Your task to perform on an android device: Do I have any events tomorrow? Image 0: 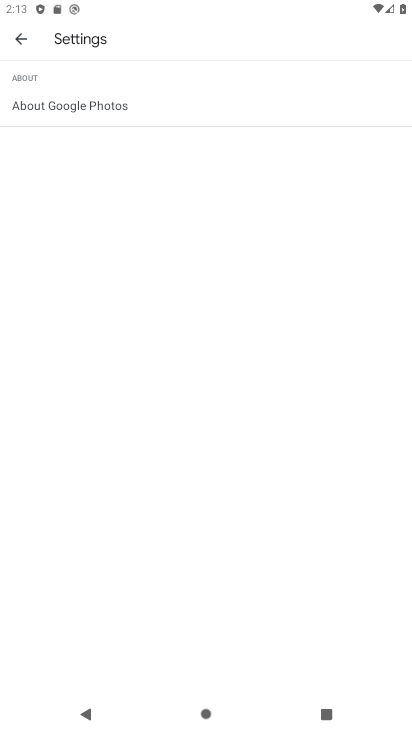
Step 0: press home button
Your task to perform on an android device: Do I have any events tomorrow? Image 1: 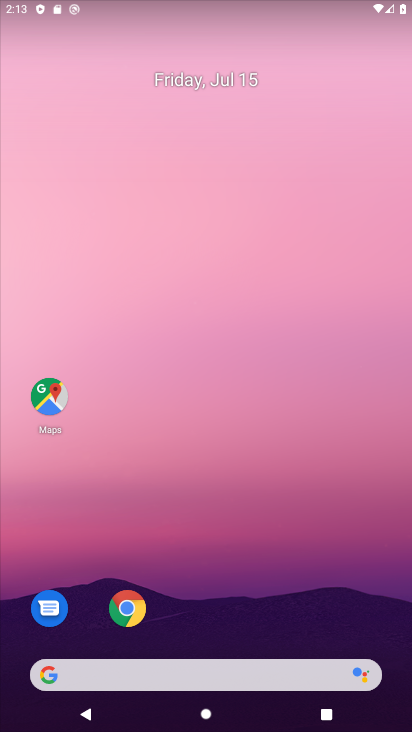
Step 1: drag from (322, 607) to (229, 18)
Your task to perform on an android device: Do I have any events tomorrow? Image 2: 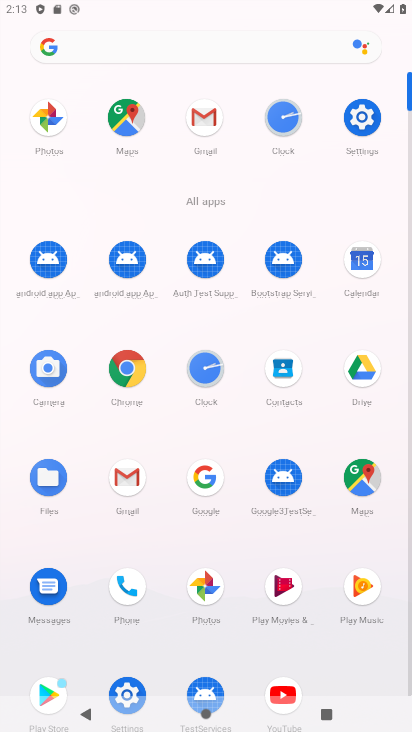
Step 2: click (359, 268)
Your task to perform on an android device: Do I have any events tomorrow? Image 3: 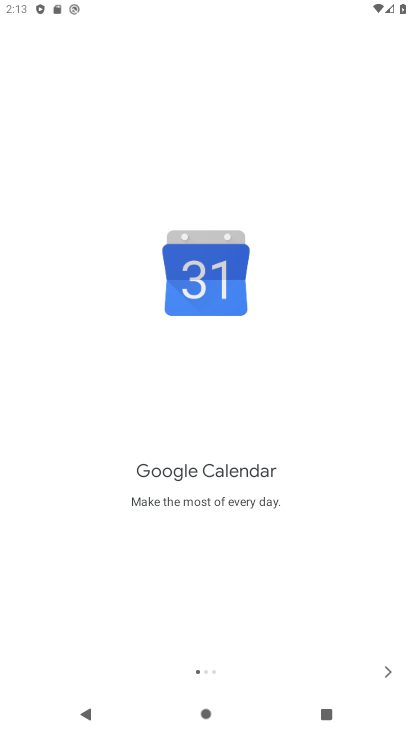
Step 3: click (387, 673)
Your task to perform on an android device: Do I have any events tomorrow? Image 4: 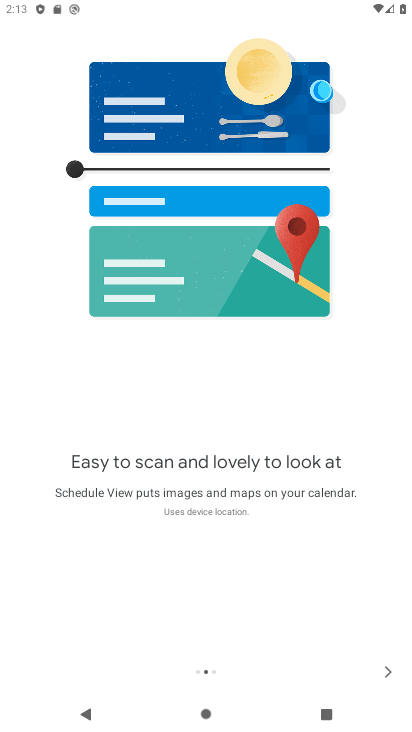
Step 4: click (387, 673)
Your task to perform on an android device: Do I have any events tomorrow? Image 5: 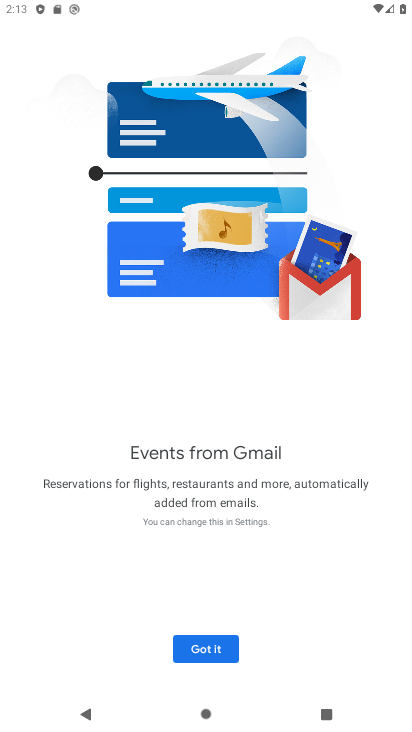
Step 5: click (216, 648)
Your task to perform on an android device: Do I have any events tomorrow? Image 6: 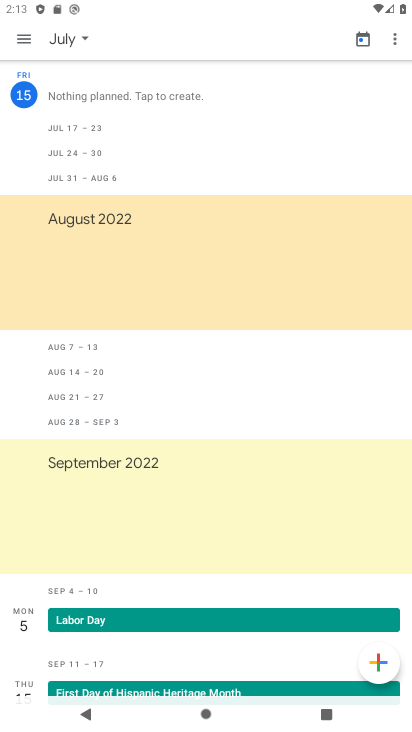
Step 6: click (23, 52)
Your task to perform on an android device: Do I have any events tomorrow? Image 7: 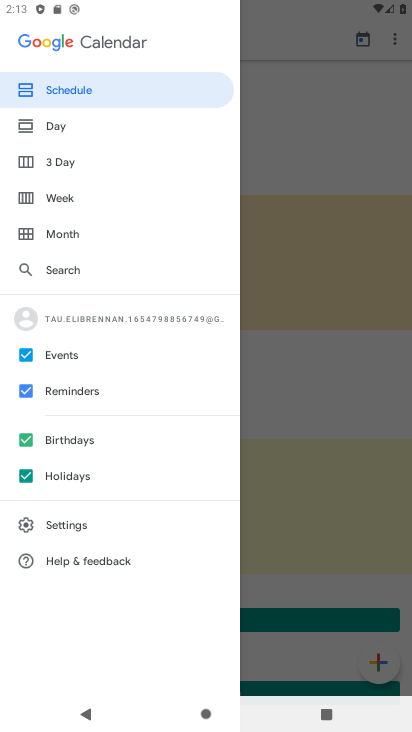
Step 7: click (20, 478)
Your task to perform on an android device: Do I have any events tomorrow? Image 8: 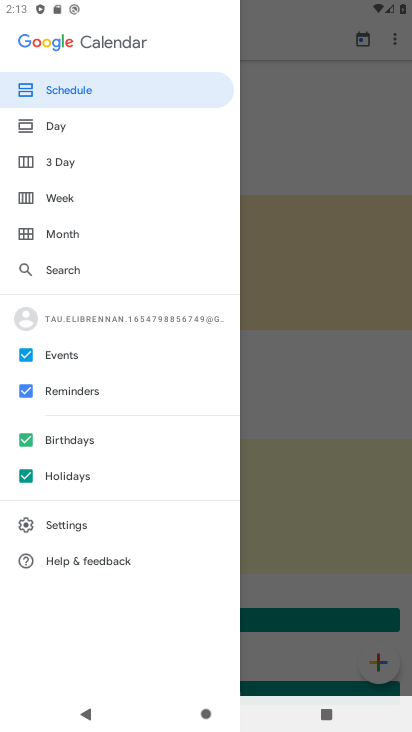
Step 8: click (24, 438)
Your task to perform on an android device: Do I have any events tomorrow? Image 9: 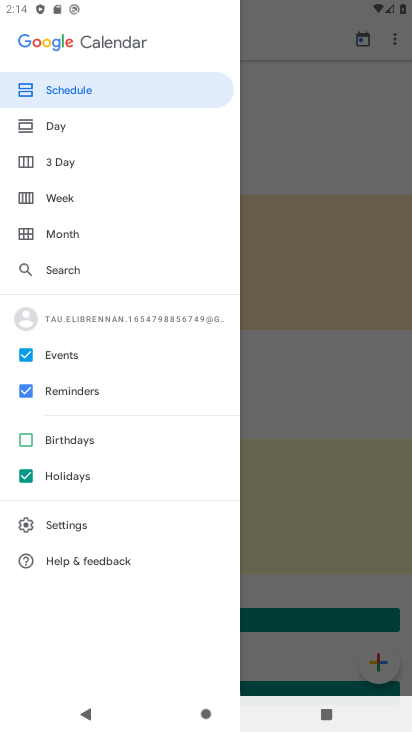
Step 9: click (24, 392)
Your task to perform on an android device: Do I have any events tomorrow? Image 10: 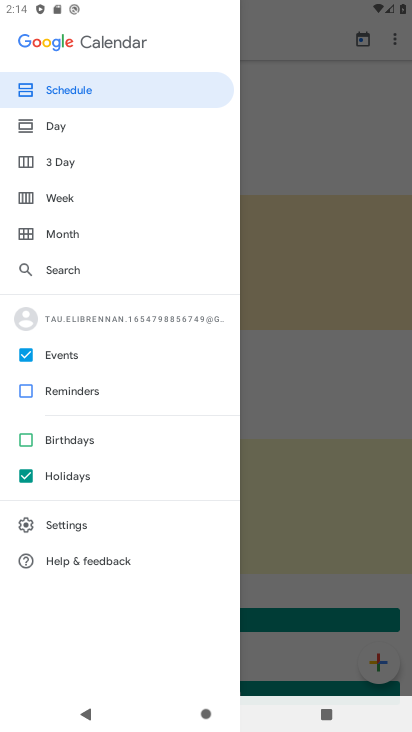
Step 10: click (30, 477)
Your task to perform on an android device: Do I have any events tomorrow? Image 11: 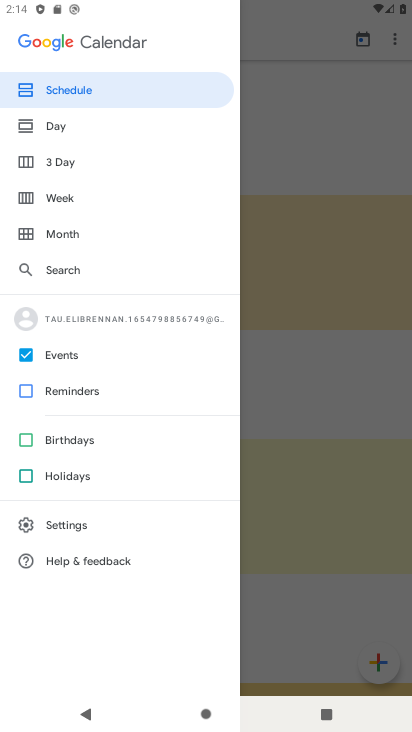
Step 11: click (61, 121)
Your task to perform on an android device: Do I have any events tomorrow? Image 12: 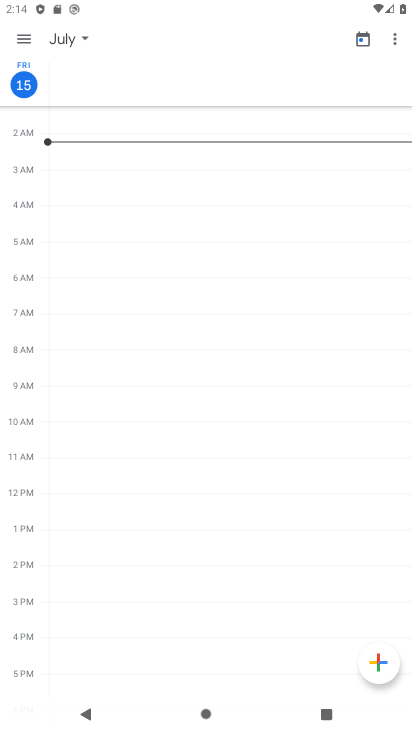
Step 12: task complete